Your task to perform on an android device: open app "Pluto TV - Live TV and Movies" Image 0: 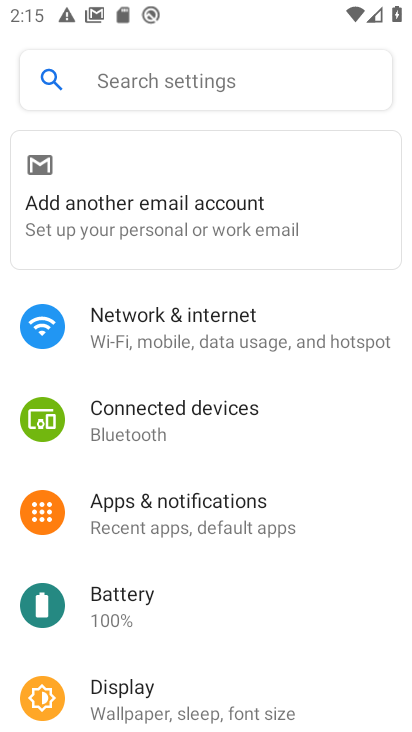
Step 0: press home button
Your task to perform on an android device: open app "Pluto TV - Live TV and Movies" Image 1: 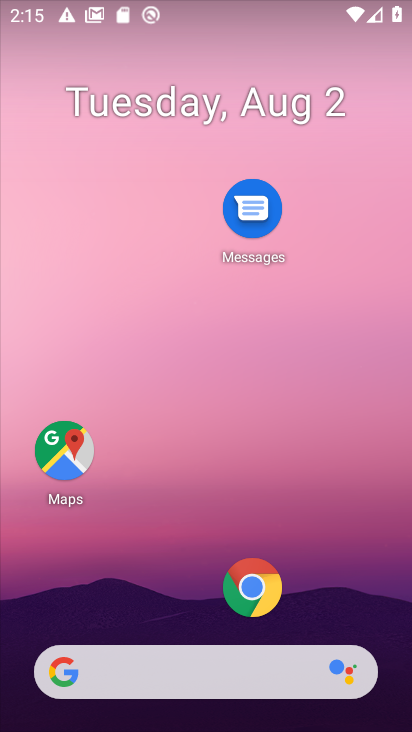
Step 1: drag from (177, 590) to (166, 266)
Your task to perform on an android device: open app "Pluto TV - Live TV and Movies" Image 2: 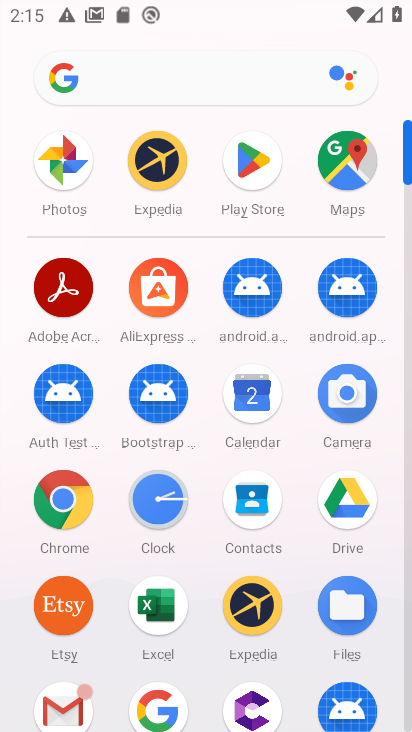
Step 2: click (254, 189)
Your task to perform on an android device: open app "Pluto TV - Live TV and Movies" Image 3: 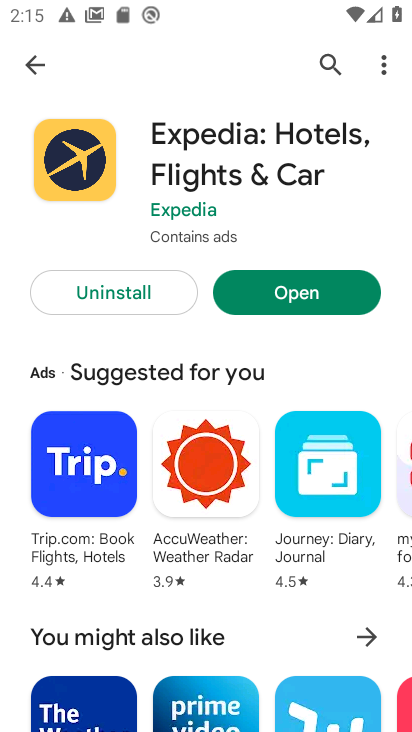
Step 3: click (330, 68)
Your task to perform on an android device: open app "Pluto TV - Live TV and Movies" Image 4: 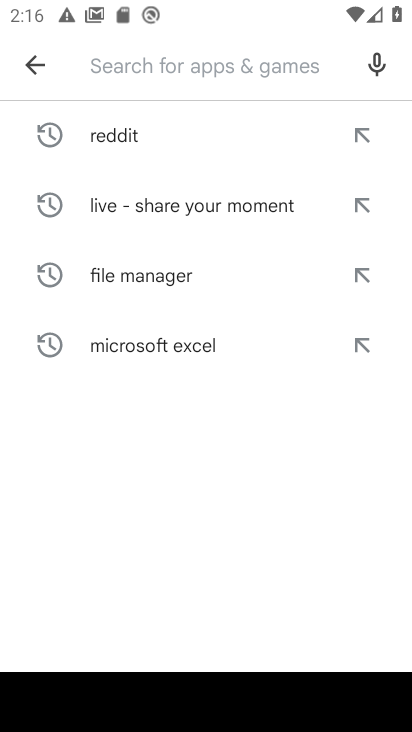
Step 4: type "Pluto TV - Live TV and Movies"
Your task to perform on an android device: open app "Pluto TV - Live TV and Movies" Image 5: 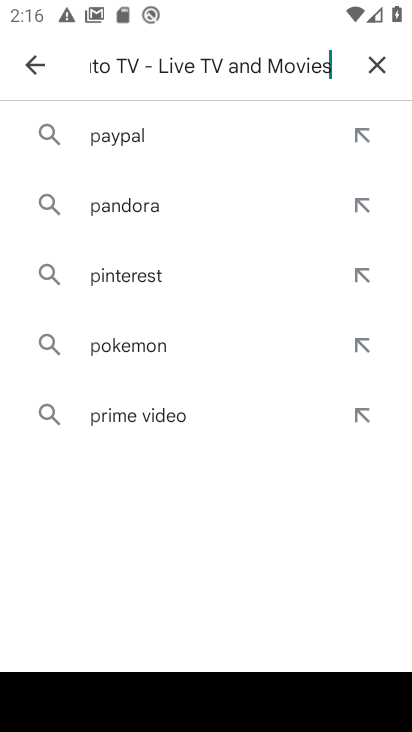
Step 5: type ""
Your task to perform on an android device: open app "Pluto TV - Live TV and Movies" Image 6: 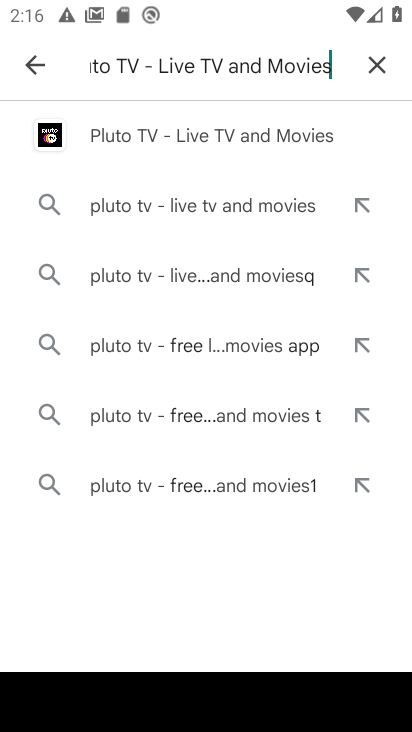
Step 6: click (136, 125)
Your task to perform on an android device: open app "Pluto TV - Live TV and Movies" Image 7: 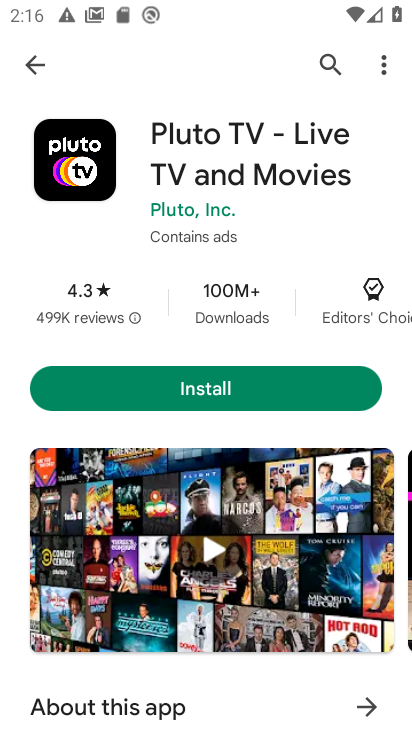
Step 7: task complete